Your task to perform on an android device: turn on bluetooth scan Image 0: 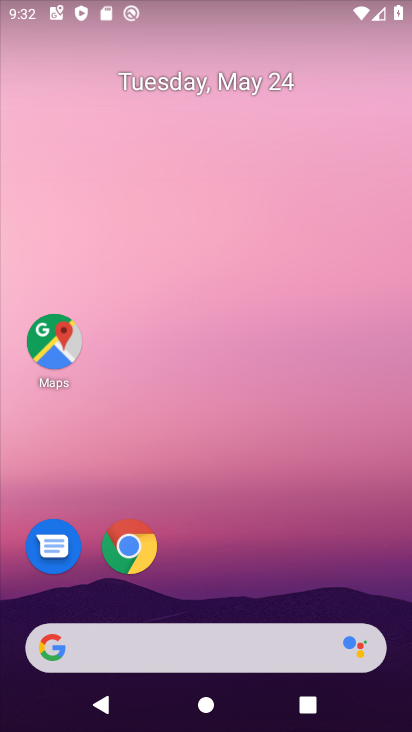
Step 0: drag from (182, 633) to (238, 292)
Your task to perform on an android device: turn on bluetooth scan Image 1: 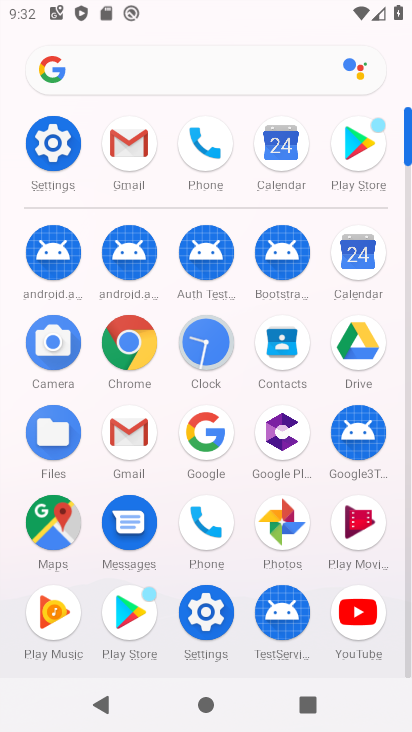
Step 1: click (58, 146)
Your task to perform on an android device: turn on bluetooth scan Image 2: 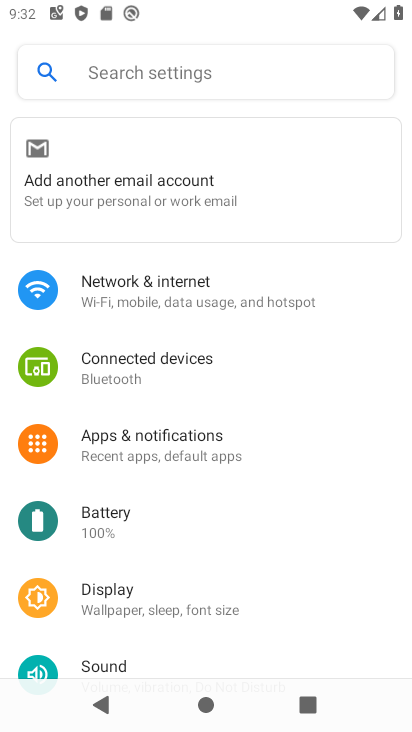
Step 2: drag from (134, 661) to (208, 339)
Your task to perform on an android device: turn on bluetooth scan Image 3: 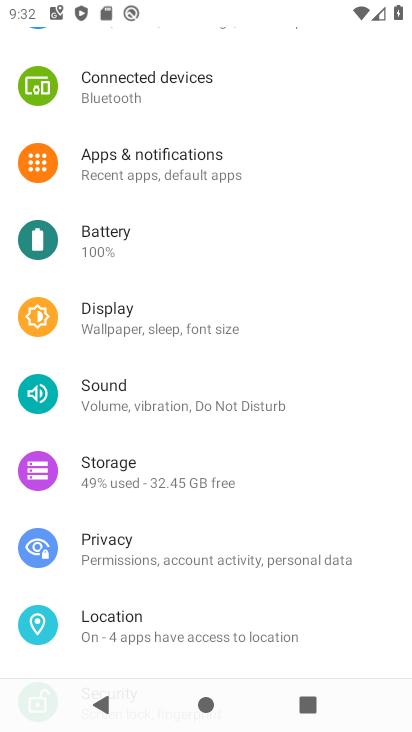
Step 3: click (114, 616)
Your task to perform on an android device: turn on bluetooth scan Image 4: 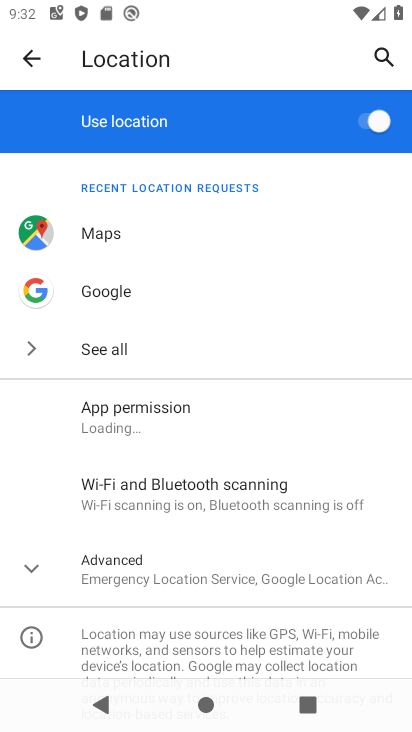
Step 4: click (132, 577)
Your task to perform on an android device: turn on bluetooth scan Image 5: 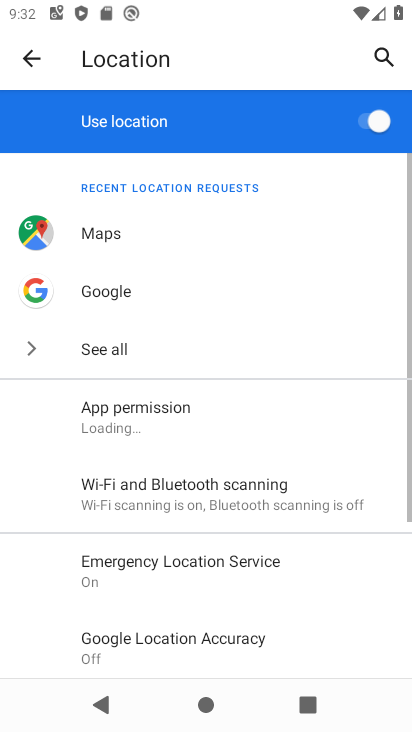
Step 5: click (128, 489)
Your task to perform on an android device: turn on bluetooth scan Image 6: 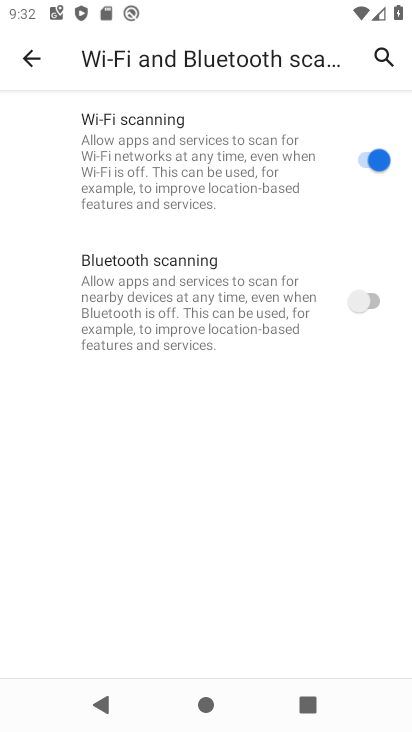
Step 6: click (372, 294)
Your task to perform on an android device: turn on bluetooth scan Image 7: 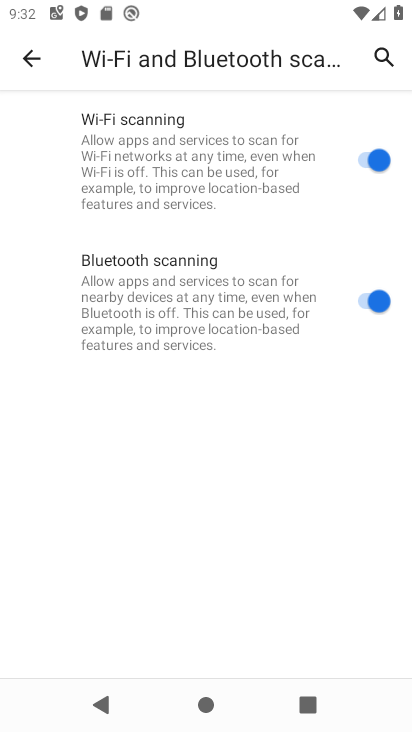
Step 7: task complete